Your task to perform on an android device: Search for seafood restaurants on Google Maps Image 0: 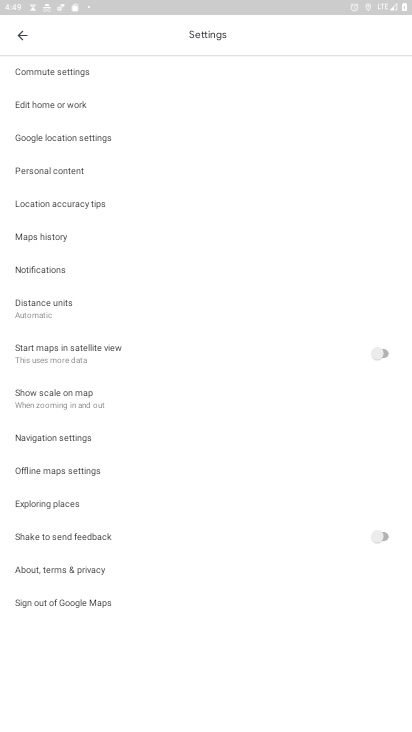
Step 0: press home button
Your task to perform on an android device: Search for seafood restaurants on Google Maps Image 1: 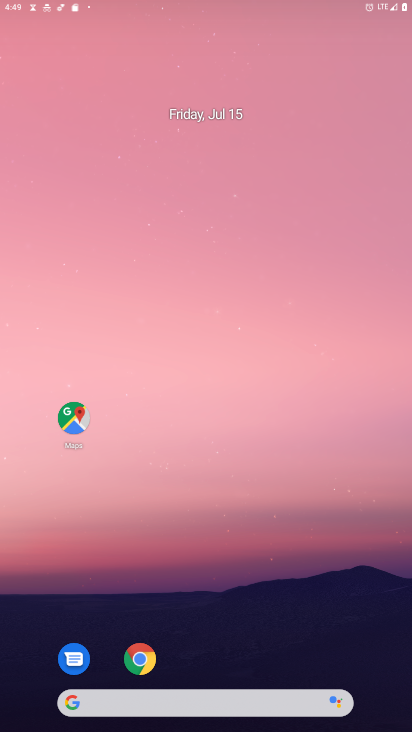
Step 1: drag from (282, 594) to (318, 129)
Your task to perform on an android device: Search for seafood restaurants on Google Maps Image 2: 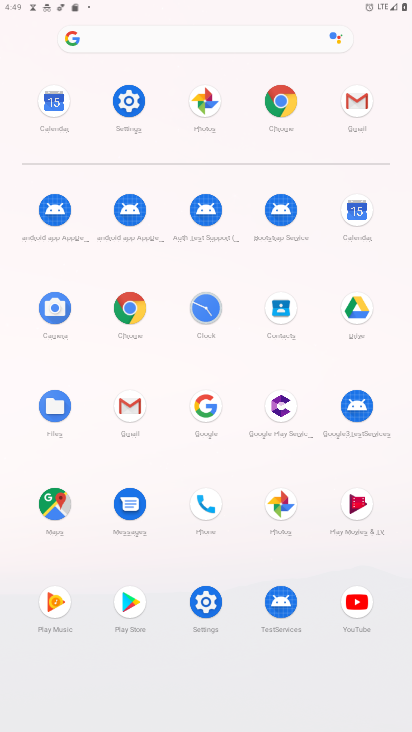
Step 2: click (53, 500)
Your task to perform on an android device: Search for seafood restaurants on Google Maps Image 3: 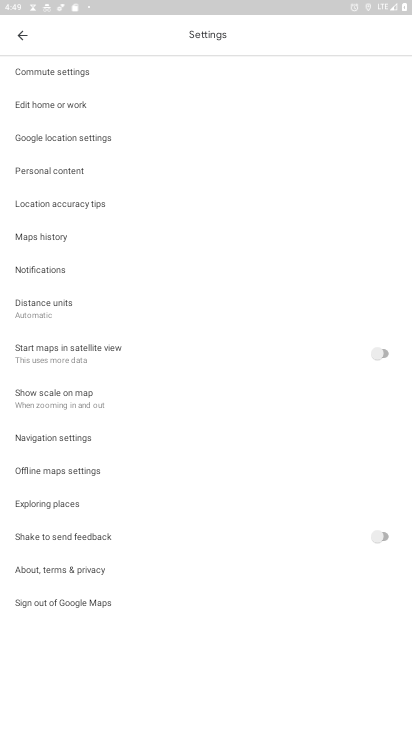
Step 3: press home button
Your task to perform on an android device: Search for seafood restaurants on Google Maps Image 4: 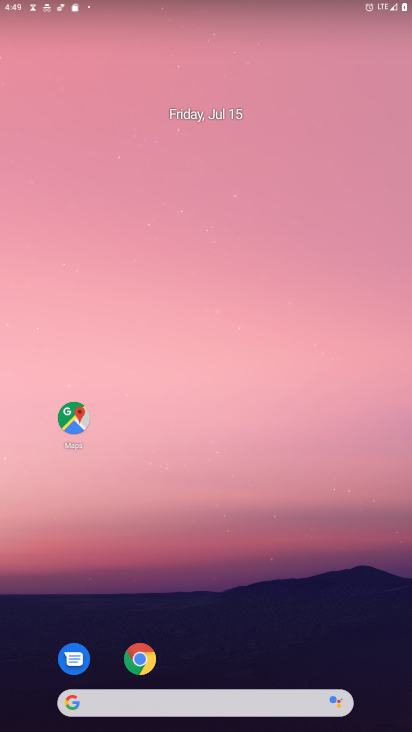
Step 4: drag from (221, 633) to (230, 258)
Your task to perform on an android device: Search for seafood restaurants on Google Maps Image 5: 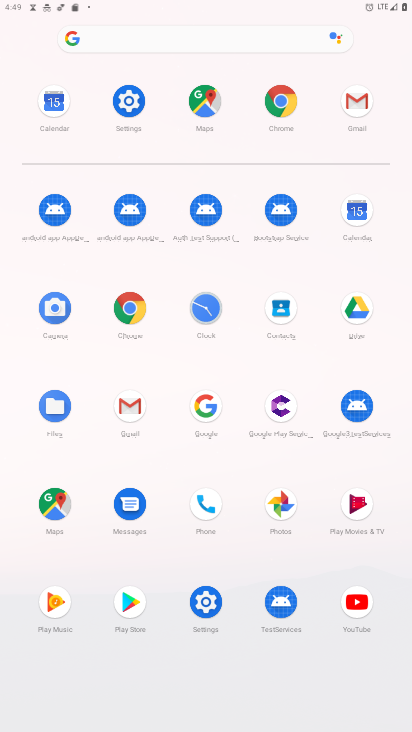
Step 5: click (53, 506)
Your task to perform on an android device: Search for seafood restaurants on Google Maps Image 6: 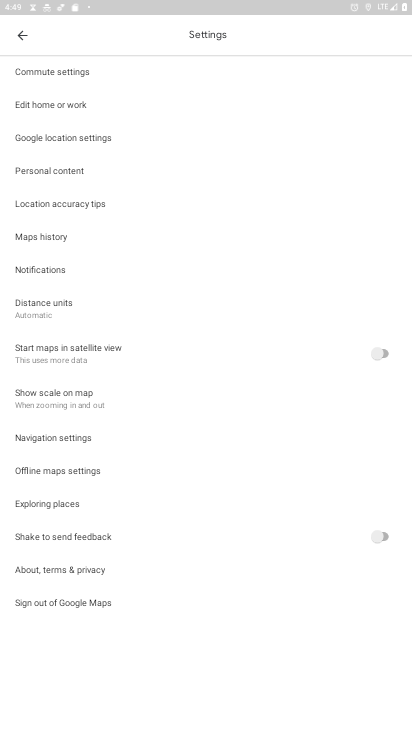
Step 6: press back button
Your task to perform on an android device: Search for seafood restaurants on Google Maps Image 7: 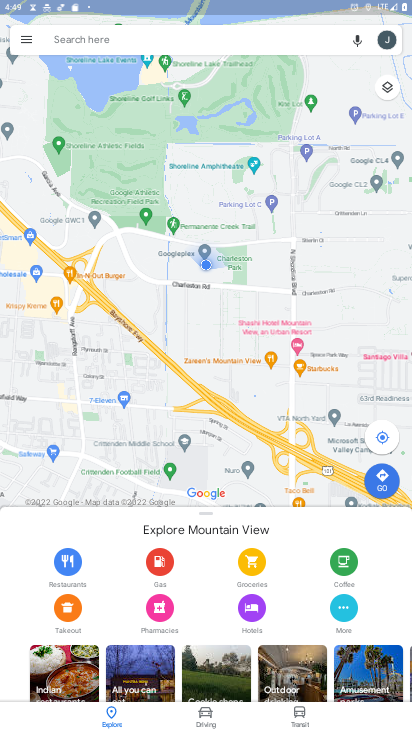
Step 7: click (252, 40)
Your task to perform on an android device: Search for seafood restaurants on Google Maps Image 8: 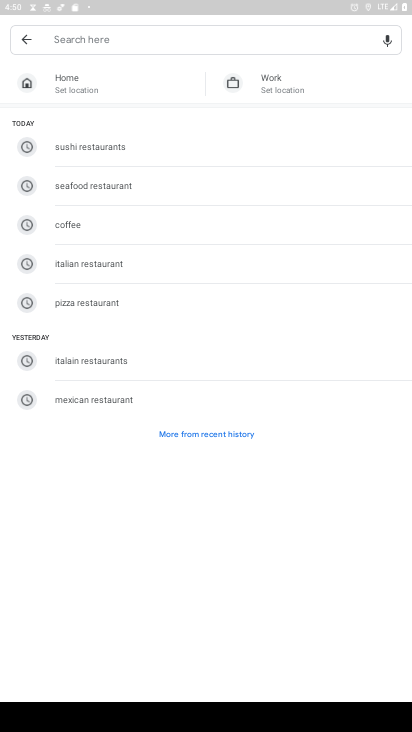
Step 8: type "seafood restaurant"
Your task to perform on an android device: Search for seafood restaurants on Google Maps Image 9: 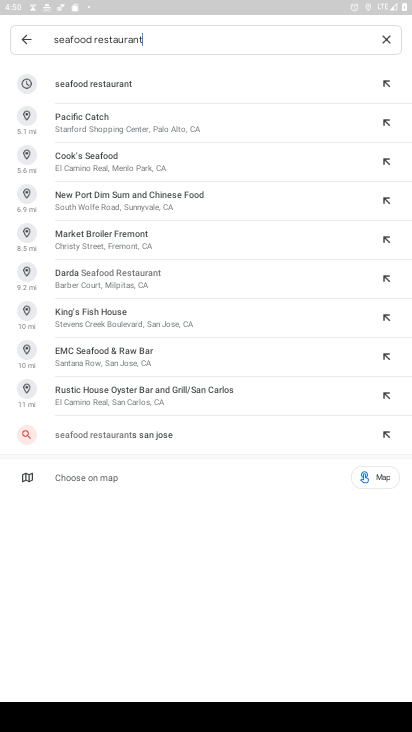
Step 9: click (276, 99)
Your task to perform on an android device: Search for seafood restaurants on Google Maps Image 10: 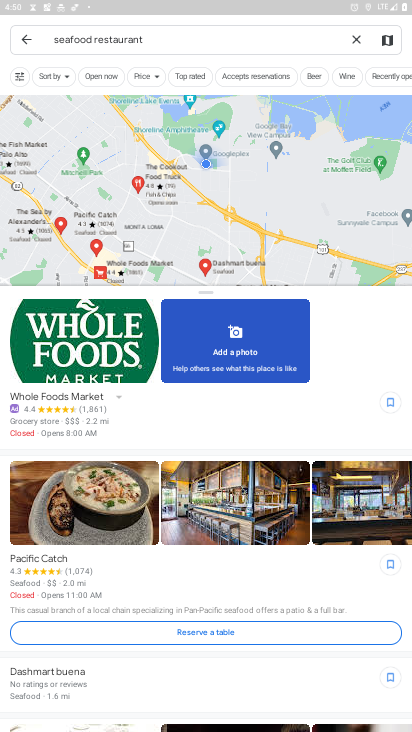
Step 10: task complete